Your task to perform on an android device: Go to Maps Image 0: 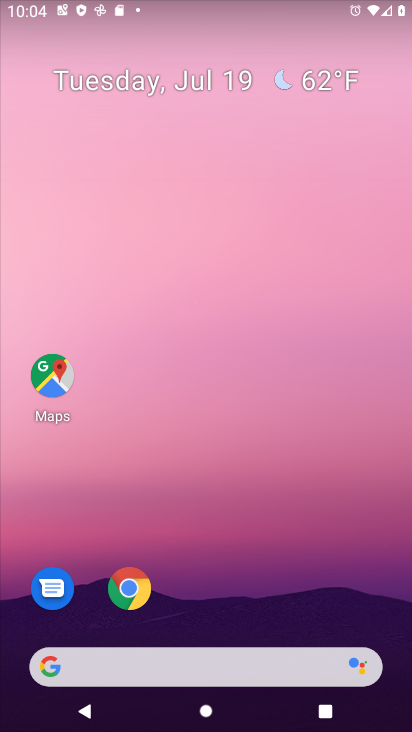
Step 0: drag from (279, 590) to (268, 92)
Your task to perform on an android device: Go to Maps Image 1: 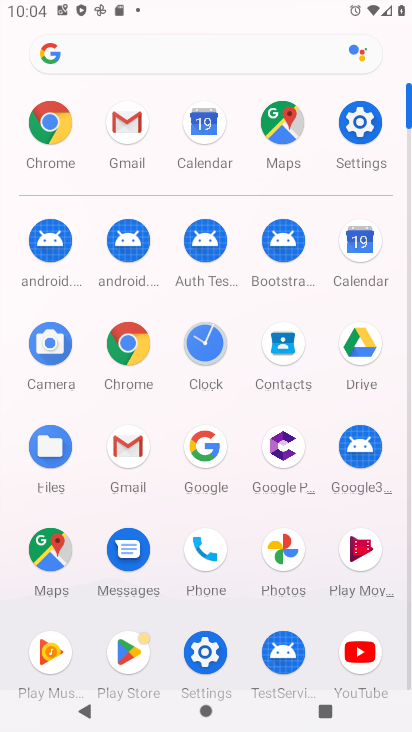
Step 1: click (43, 558)
Your task to perform on an android device: Go to Maps Image 2: 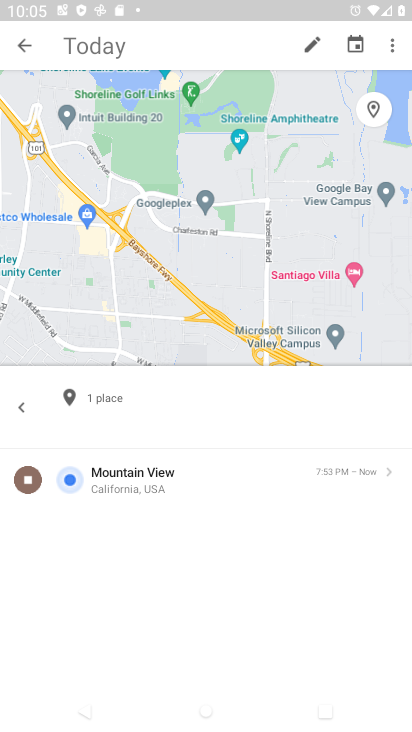
Step 2: task complete